Your task to perform on an android device: turn notification dots on Image 0: 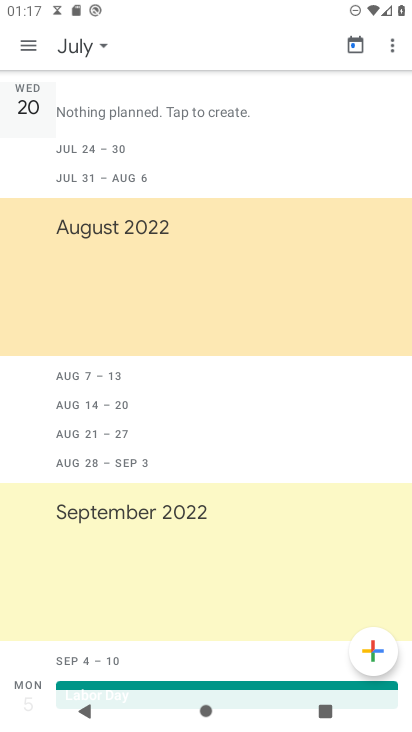
Step 0: press home button
Your task to perform on an android device: turn notification dots on Image 1: 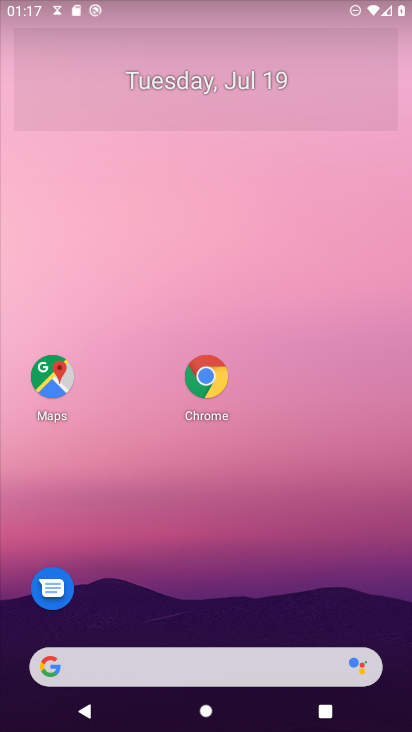
Step 1: drag from (338, 543) to (378, 10)
Your task to perform on an android device: turn notification dots on Image 2: 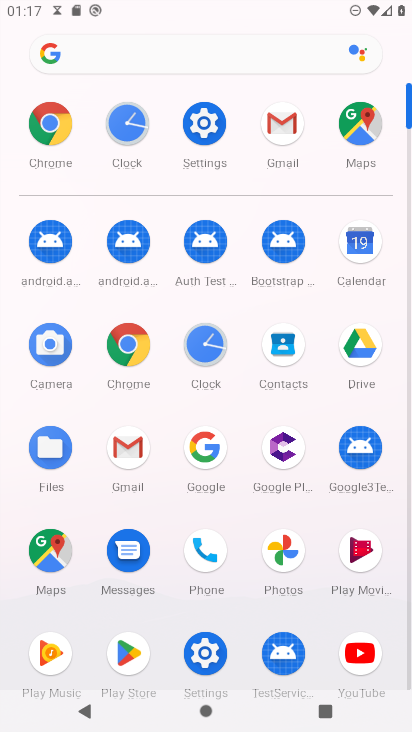
Step 2: click (193, 129)
Your task to perform on an android device: turn notification dots on Image 3: 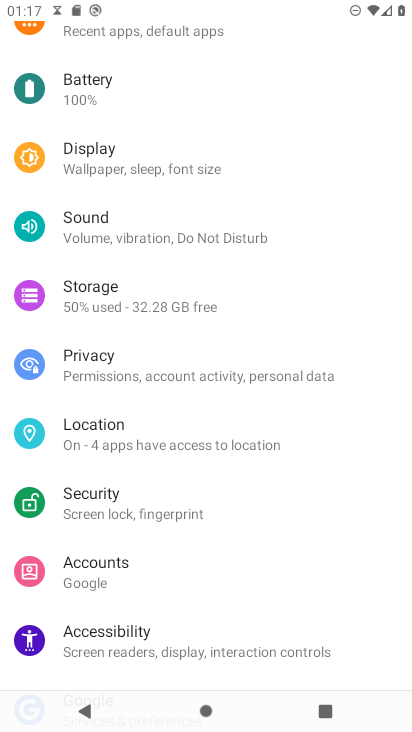
Step 3: drag from (206, 589) to (192, 178)
Your task to perform on an android device: turn notification dots on Image 4: 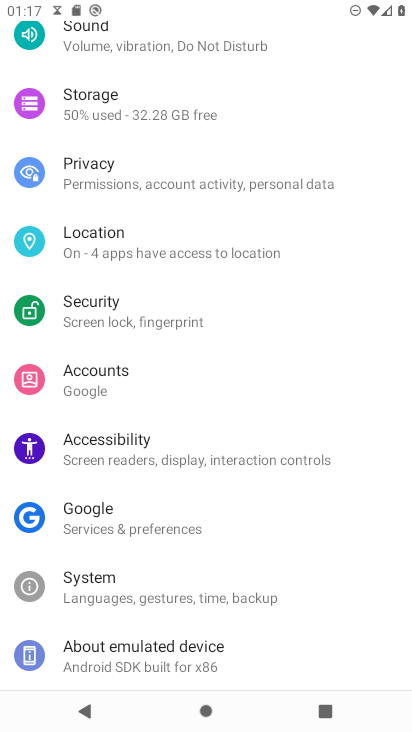
Step 4: drag from (160, 151) to (149, 531)
Your task to perform on an android device: turn notification dots on Image 5: 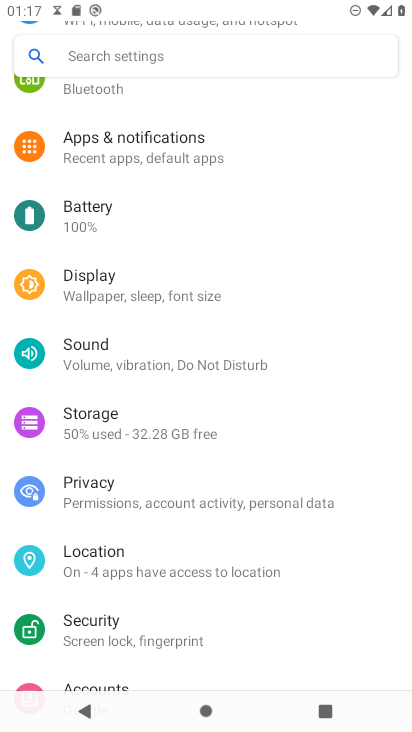
Step 5: click (152, 152)
Your task to perform on an android device: turn notification dots on Image 6: 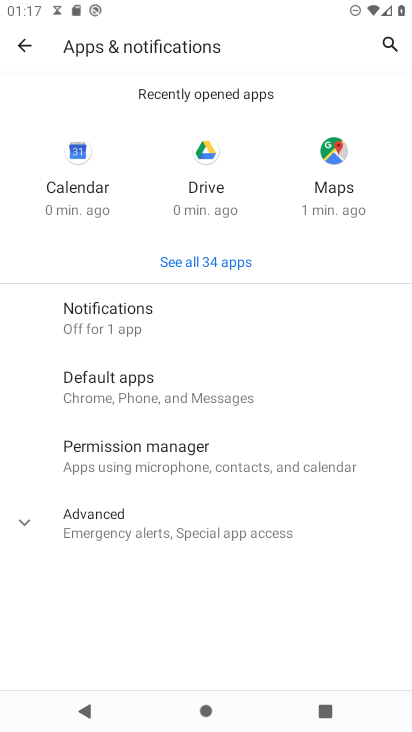
Step 6: click (27, 517)
Your task to perform on an android device: turn notification dots on Image 7: 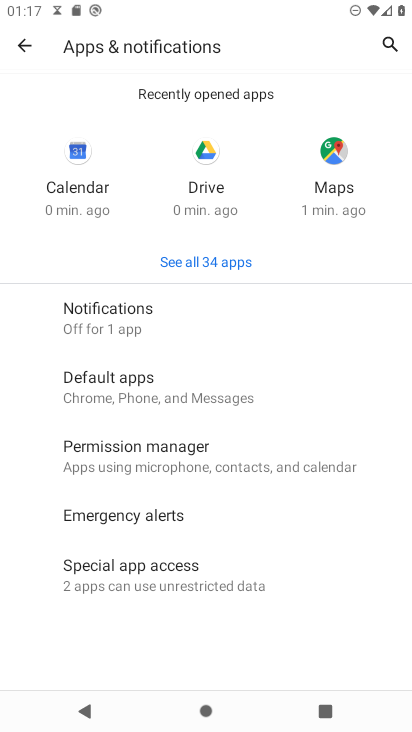
Step 7: click (93, 333)
Your task to perform on an android device: turn notification dots on Image 8: 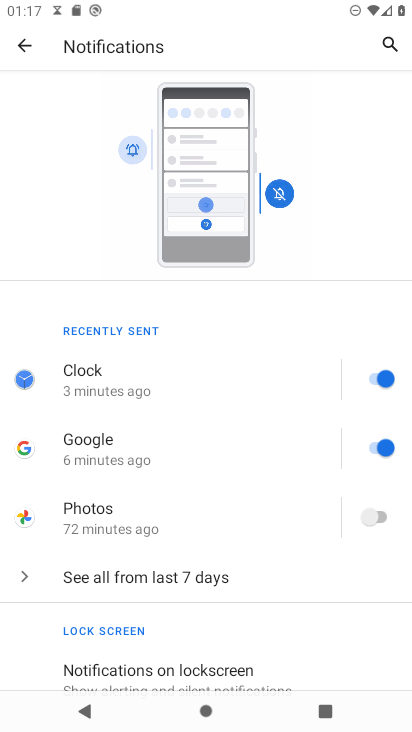
Step 8: drag from (27, 620) to (73, 239)
Your task to perform on an android device: turn notification dots on Image 9: 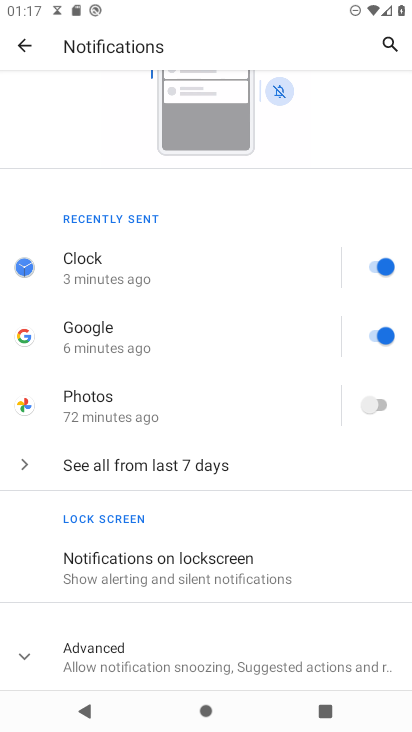
Step 9: click (16, 657)
Your task to perform on an android device: turn notification dots on Image 10: 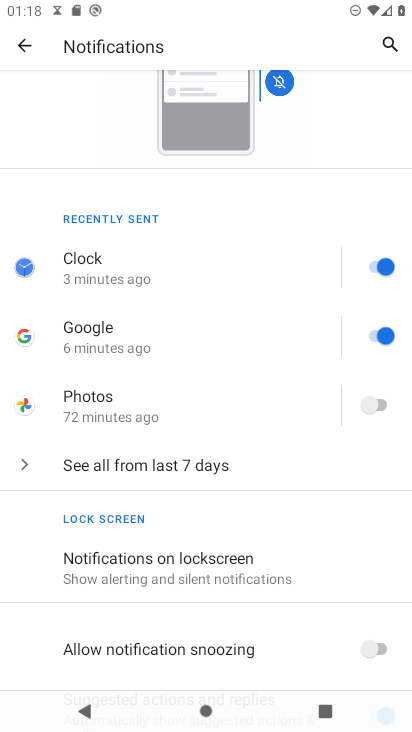
Step 10: task complete